Your task to perform on an android device: turn on the 24-hour format for clock Image 0: 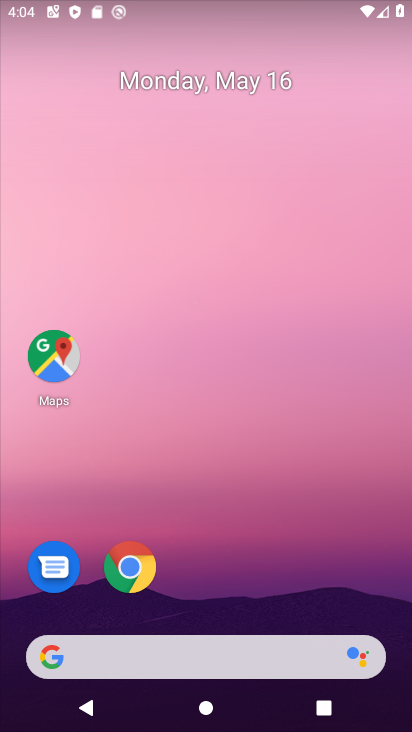
Step 0: drag from (205, 643) to (270, 38)
Your task to perform on an android device: turn on the 24-hour format for clock Image 1: 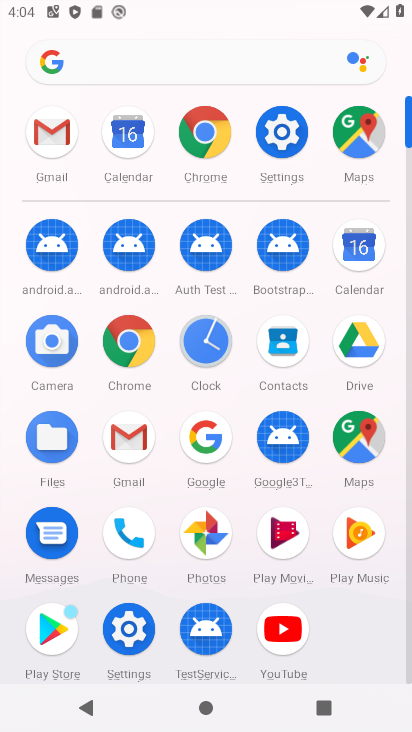
Step 1: click (216, 339)
Your task to perform on an android device: turn on the 24-hour format for clock Image 2: 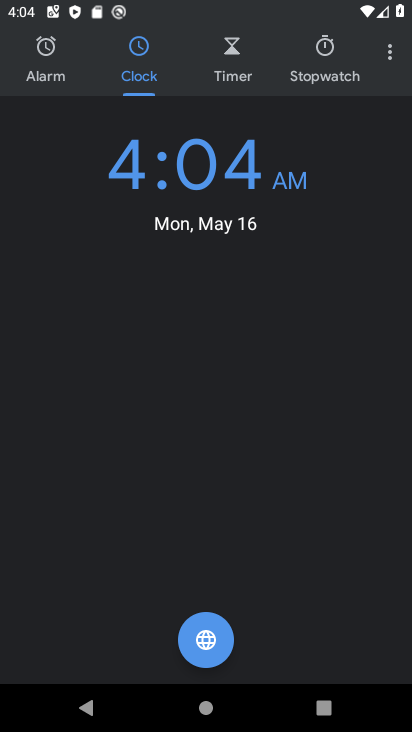
Step 2: click (397, 48)
Your task to perform on an android device: turn on the 24-hour format for clock Image 3: 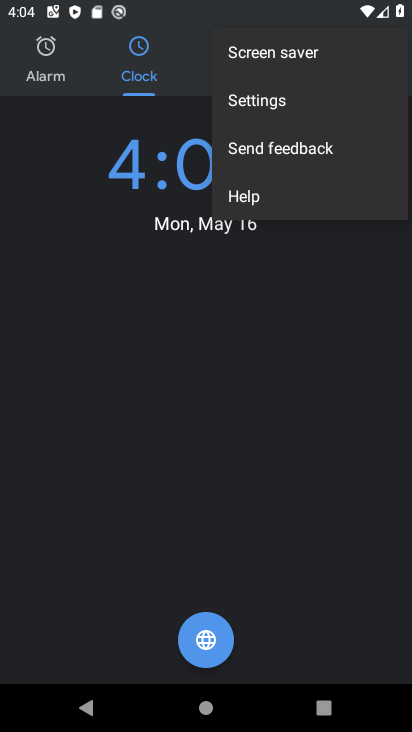
Step 3: click (283, 101)
Your task to perform on an android device: turn on the 24-hour format for clock Image 4: 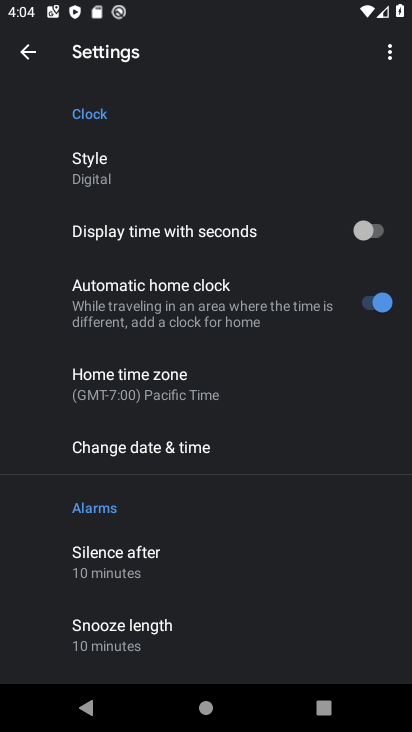
Step 4: drag from (252, 590) to (265, 107)
Your task to perform on an android device: turn on the 24-hour format for clock Image 5: 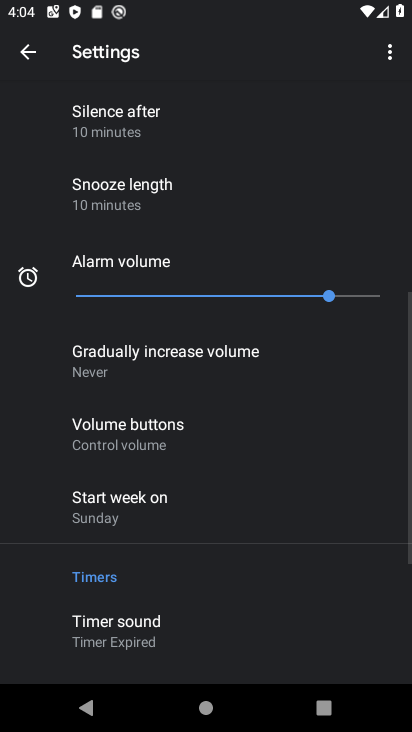
Step 5: drag from (273, 183) to (281, 609)
Your task to perform on an android device: turn on the 24-hour format for clock Image 6: 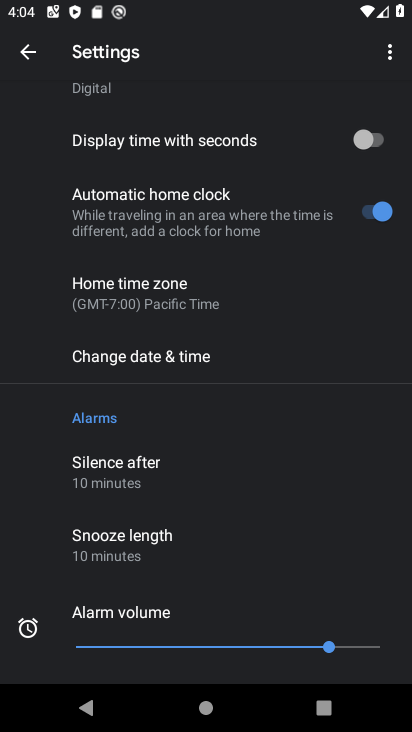
Step 6: click (203, 370)
Your task to perform on an android device: turn on the 24-hour format for clock Image 7: 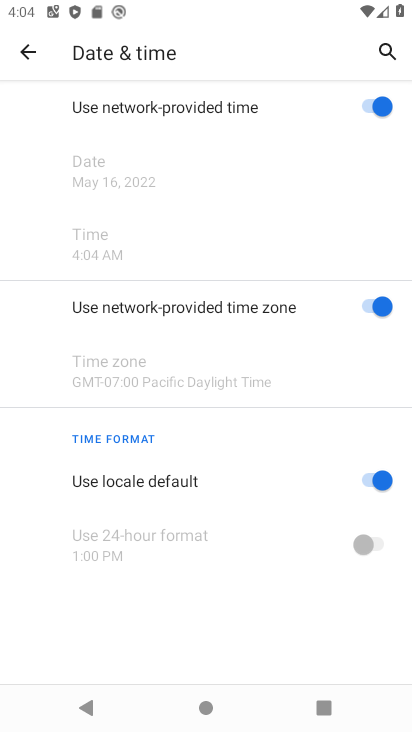
Step 7: drag from (286, 655) to (260, 305)
Your task to perform on an android device: turn on the 24-hour format for clock Image 8: 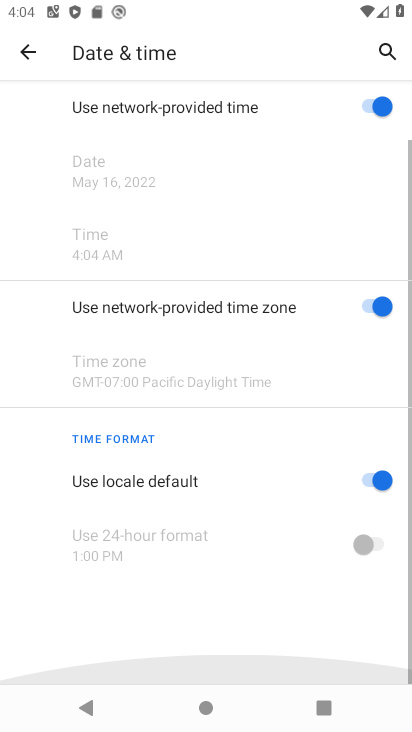
Step 8: drag from (251, 220) to (271, 584)
Your task to perform on an android device: turn on the 24-hour format for clock Image 9: 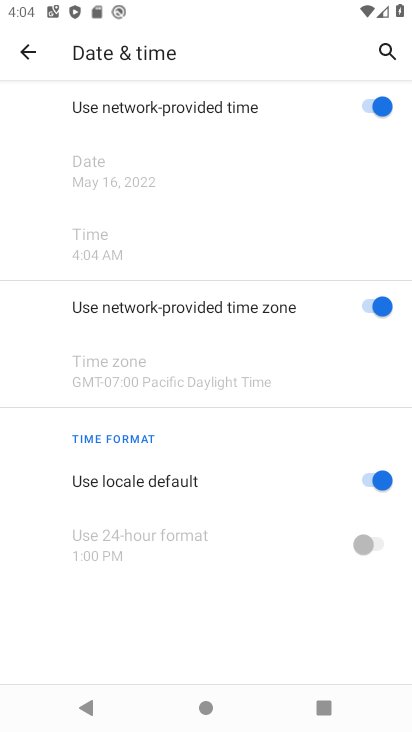
Step 9: click (367, 482)
Your task to perform on an android device: turn on the 24-hour format for clock Image 10: 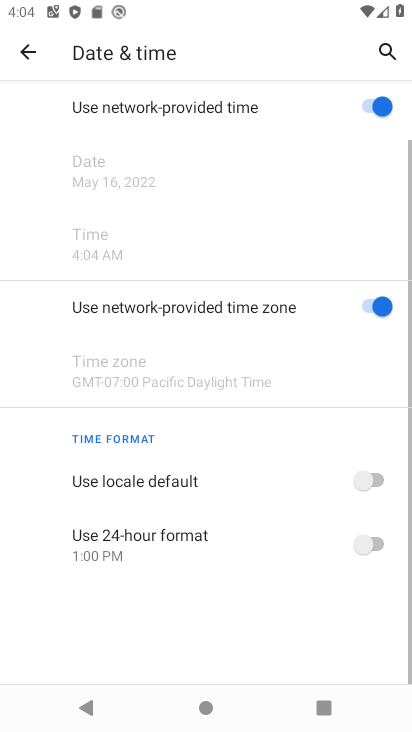
Step 10: click (374, 541)
Your task to perform on an android device: turn on the 24-hour format for clock Image 11: 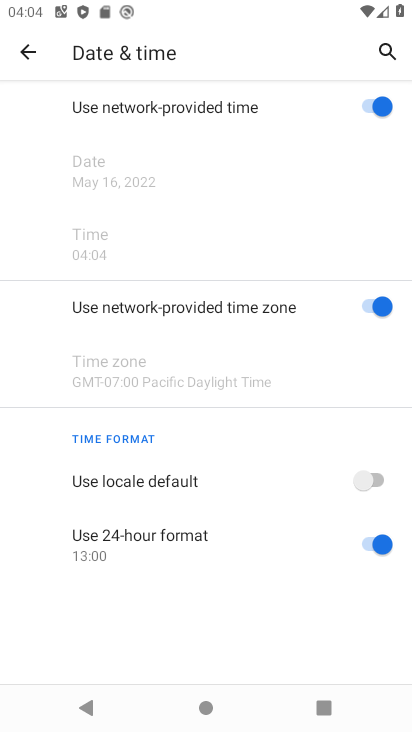
Step 11: task complete